Your task to perform on an android device: change keyboard looks Image 0: 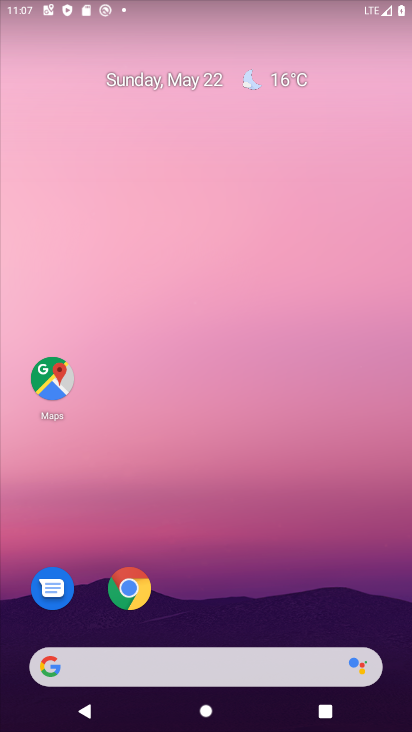
Step 0: drag from (203, 622) to (209, 230)
Your task to perform on an android device: change keyboard looks Image 1: 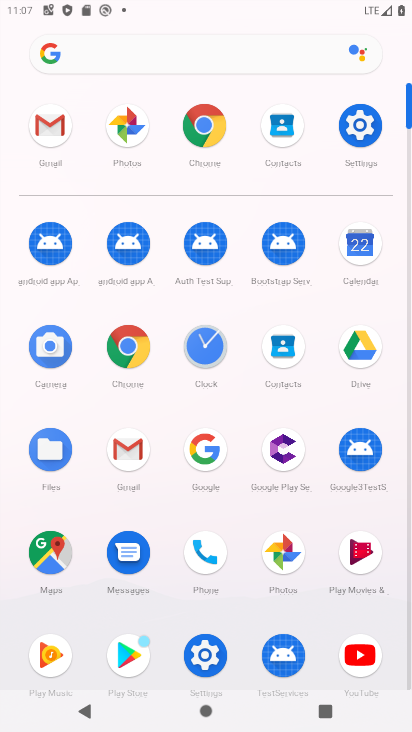
Step 1: click (351, 126)
Your task to perform on an android device: change keyboard looks Image 2: 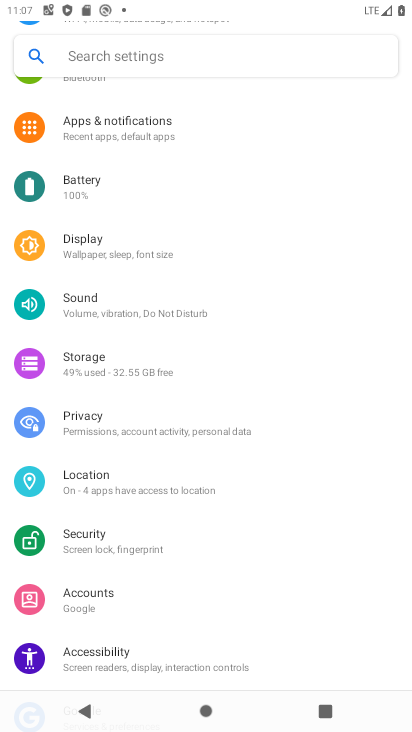
Step 2: drag from (218, 609) to (202, 203)
Your task to perform on an android device: change keyboard looks Image 3: 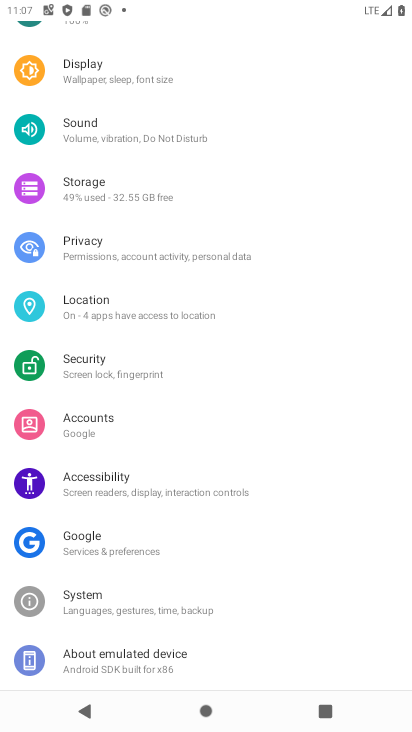
Step 3: drag from (166, 590) to (198, 291)
Your task to perform on an android device: change keyboard looks Image 4: 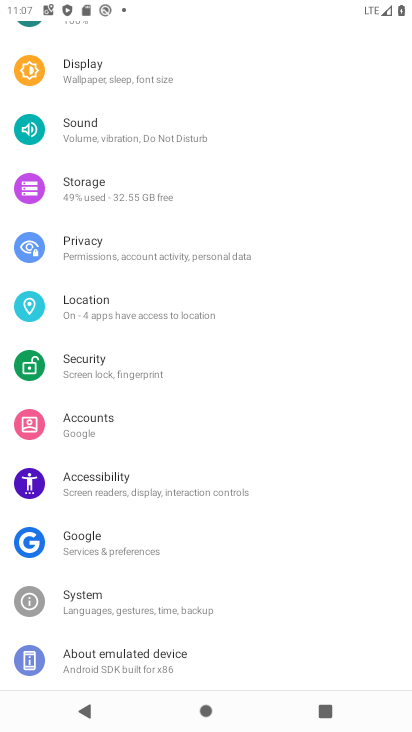
Step 4: click (86, 600)
Your task to perform on an android device: change keyboard looks Image 5: 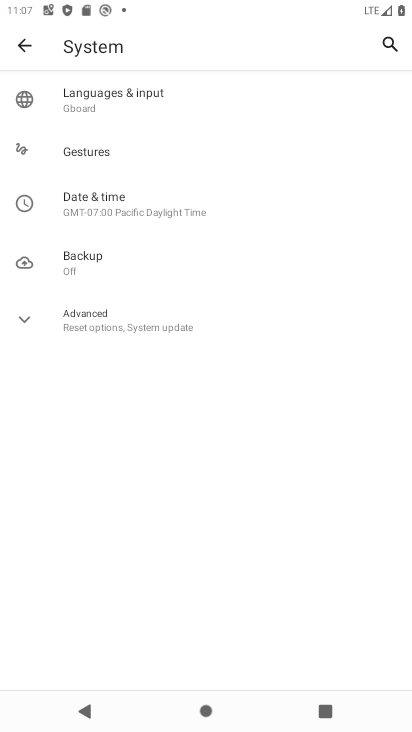
Step 5: click (150, 118)
Your task to perform on an android device: change keyboard looks Image 6: 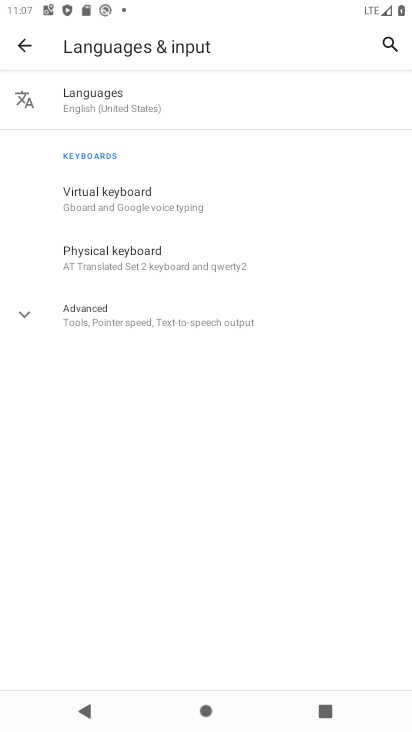
Step 6: click (174, 195)
Your task to perform on an android device: change keyboard looks Image 7: 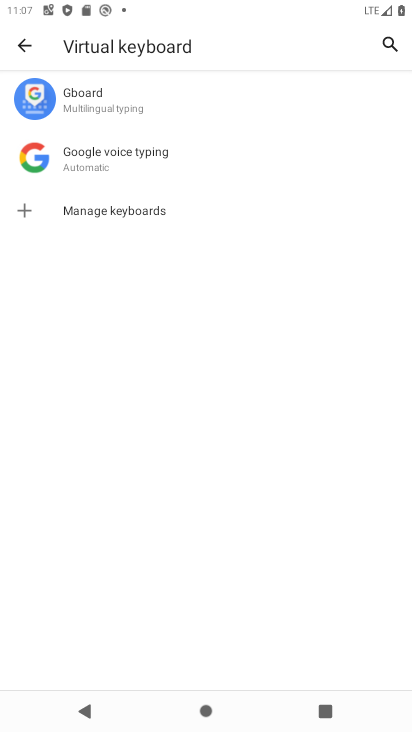
Step 7: click (144, 108)
Your task to perform on an android device: change keyboard looks Image 8: 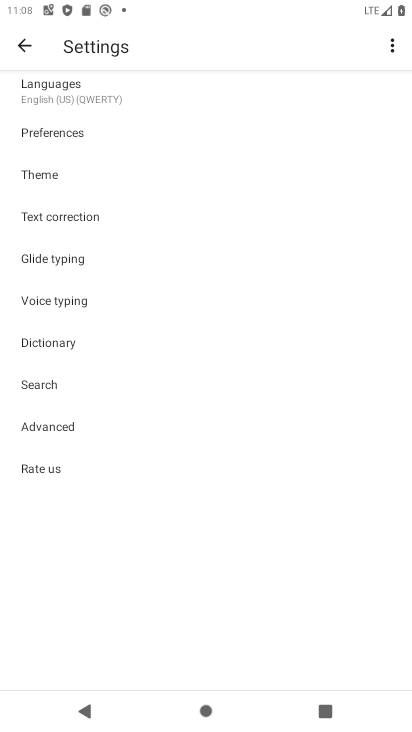
Step 8: click (58, 177)
Your task to perform on an android device: change keyboard looks Image 9: 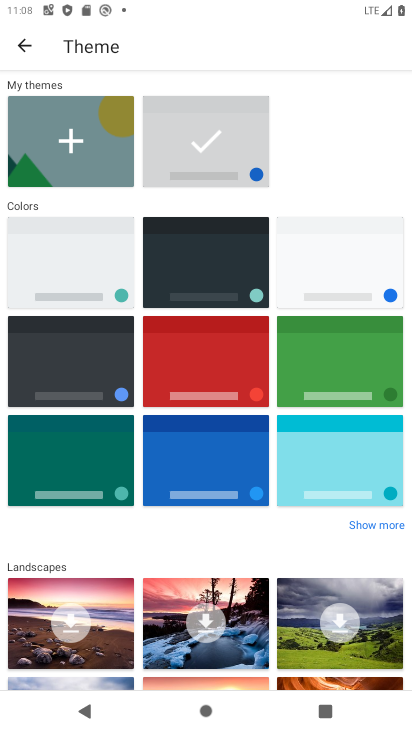
Step 9: click (358, 272)
Your task to perform on an android device: change keyboard looks Image 10: 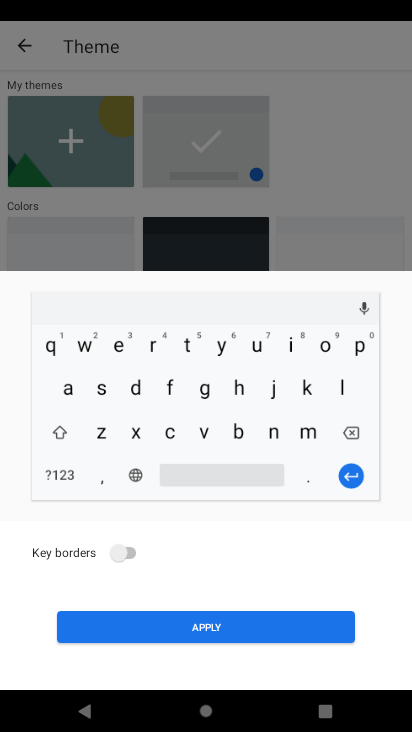
Step 10: click (275, 627)
Your task to perform on an android device: change keyboard looks Image 11: 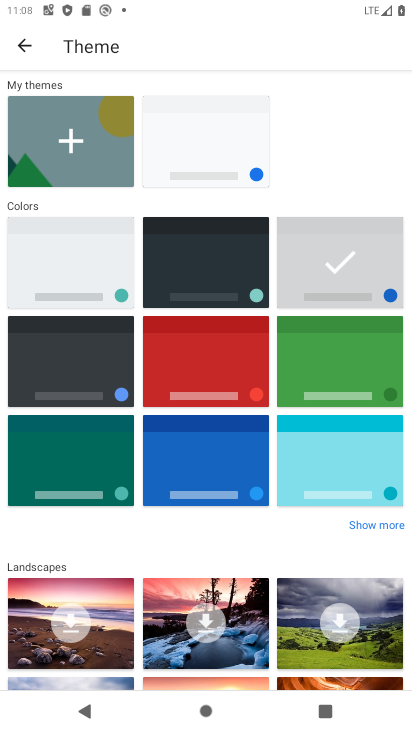
Step 11: task complete